Your task to perform on an android device: turn on the 24-hour format for clock Image 0: 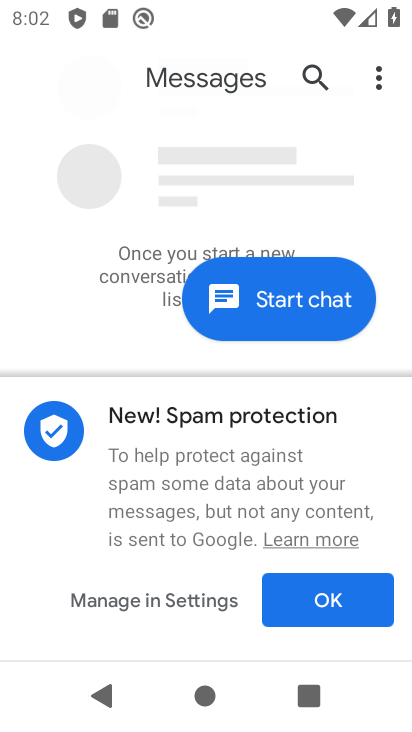
Step 0: press home button
Your task to perform on an android device: turn on the 24-hour format for clock Image 1: 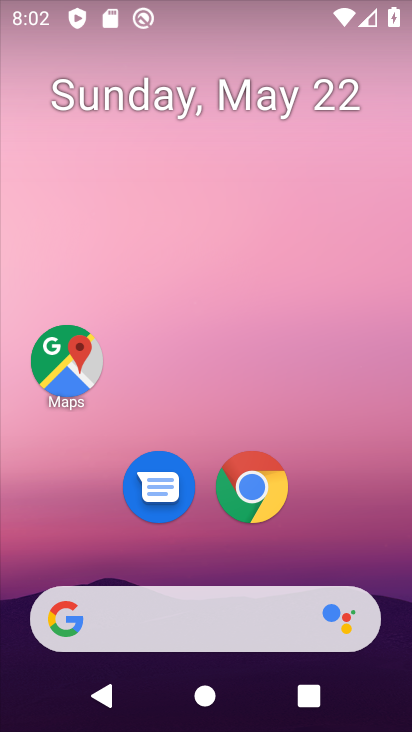
Step 1: drag from (330, 468) to (1, 34)
Your task to perform on an android device: turn on the 24-hour format for clock Image 2: 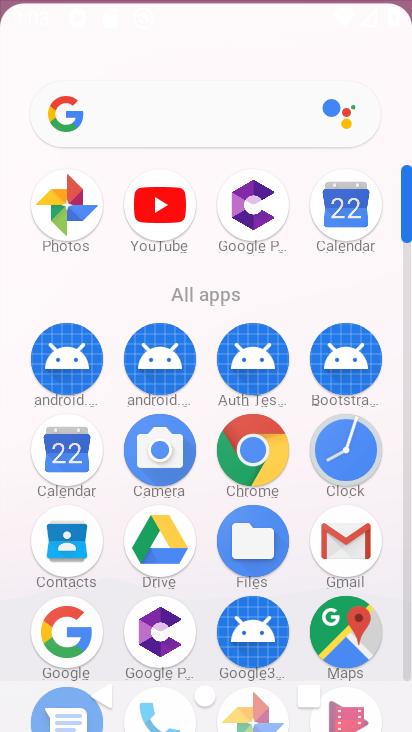
Step 2: drag from (257, 208) to (250, 31)
Your task to perform on an android device: turn on the 24-hour format for clock Image 3: 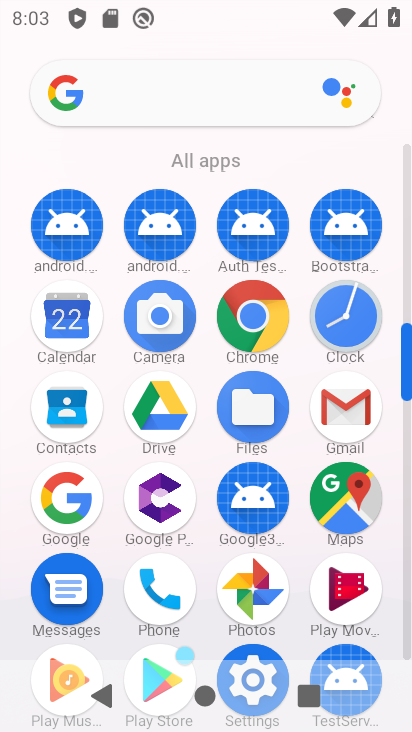
Step 3: click (370, 324)
Your task to perform on an android device: turn on the 24-hour format for clock Image 4: 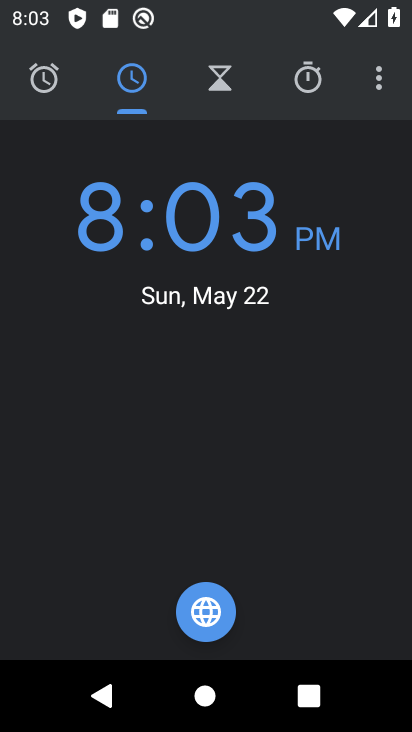
Step 4: click (381, 70)
Your task to perform on an android device: turn on the 24-hour format for clock Image 5: 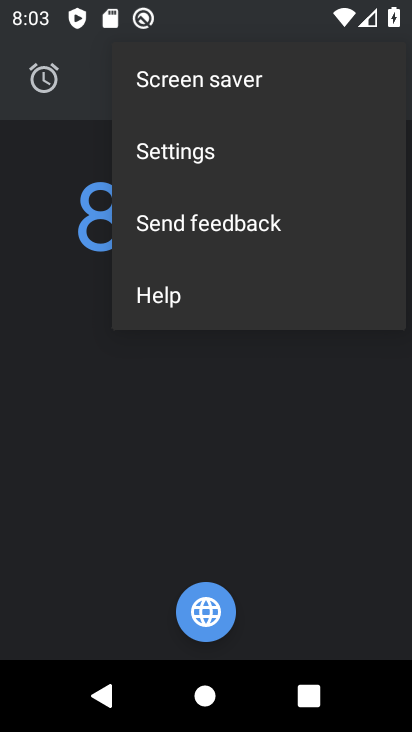
Step 5: click (168, 157)
Your task to perform on an android device: turn on the 24-hour format for clock Image 6: 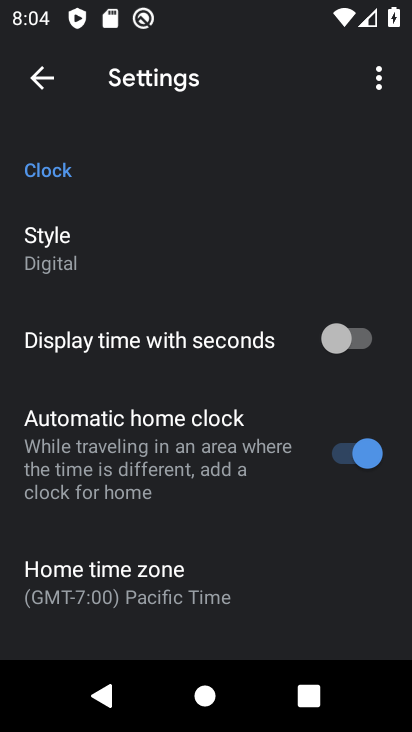
Step 6: drag from (172, 582) to (138, 210)
Your task to perform on an android device: turn on the 24-hour format for clock Image 7: 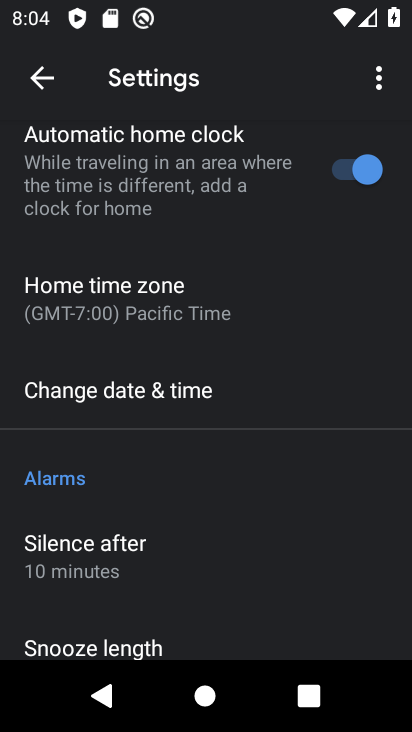
Step 7: click (86, 393)
Your task to perform on an android device: turn on the 24-hour format for clock Image 8: 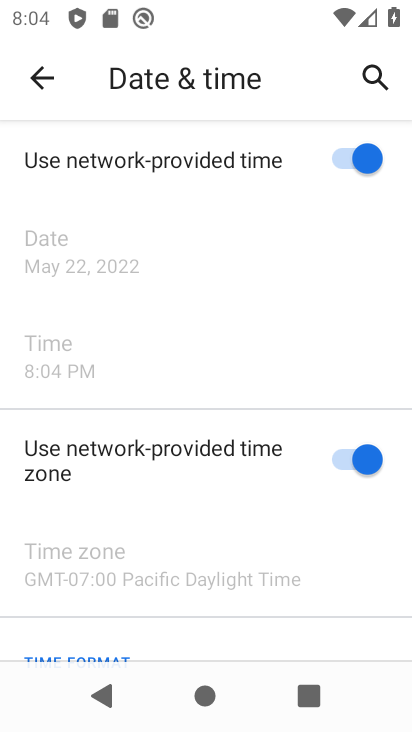
Step 8: drag from (171, 604) to (151, 217)
Your task to perform on an android device: turn on the 24-hour format for clock Image 9: 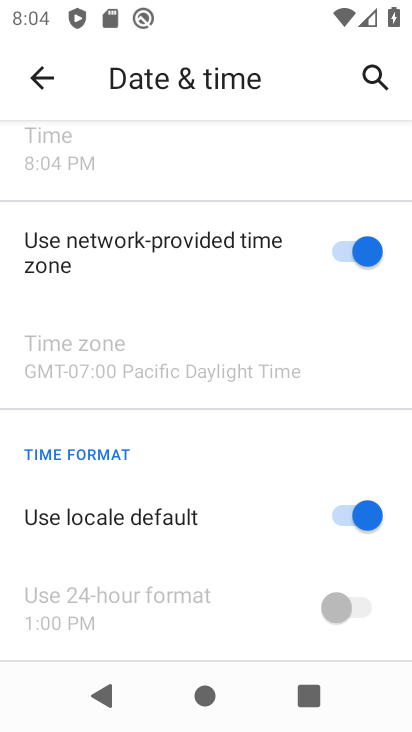
Step 9: click (342, 516)
Your task to perform on an android device: turn on the 24-hour format for clock Image 10: 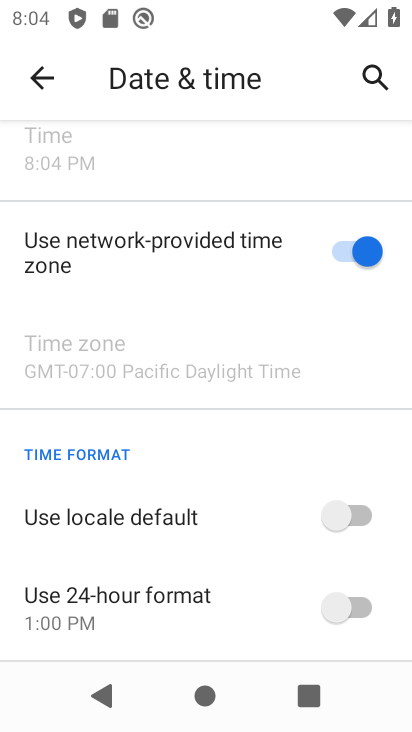
Step 10: task complete